Your task to perform on an android device: Open the Play Movies app and select the watchlist tab. Image 0: 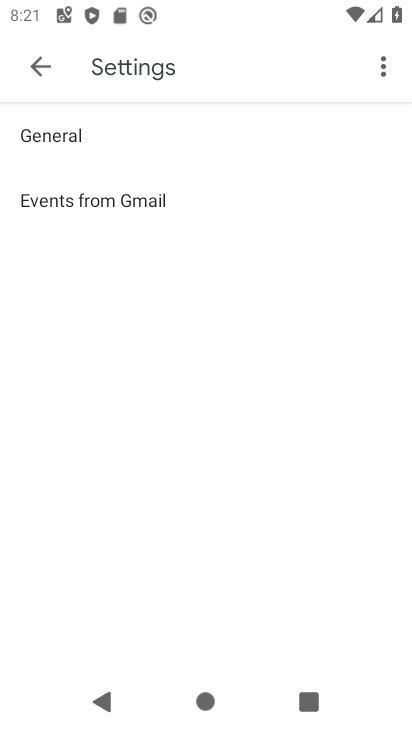
Step 0: press home button
Your task to perform on an android device: Open the Play Movies app and select the watchlist tab. Image 1: 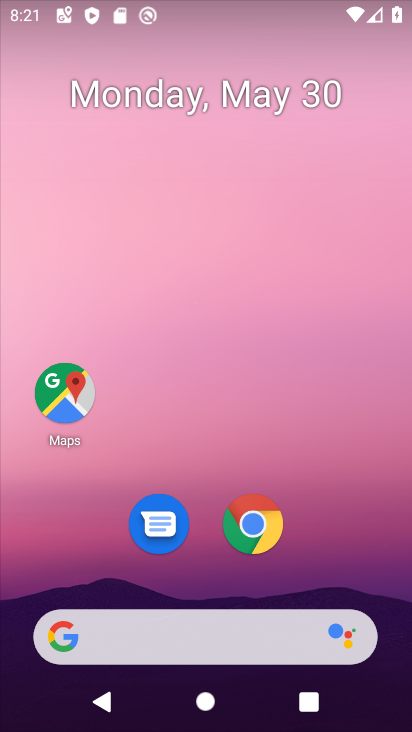
Step 1: drag from (305, 513) to (305, 31)
Your task to perform on an android device: Open the Play Movies app and select the watchlist tab. Image 2: 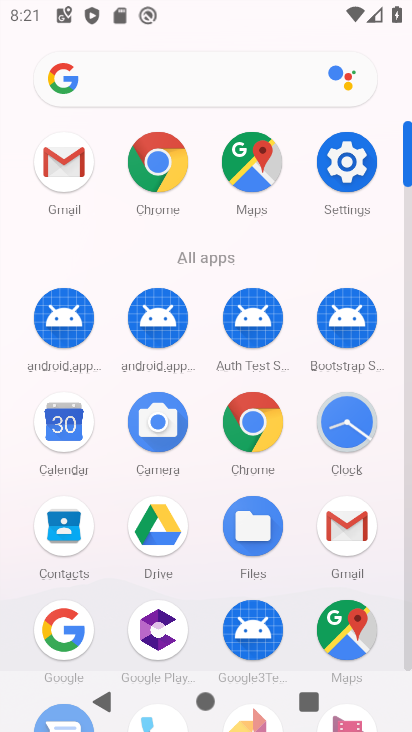
Step 2: drag from (310, 426) to (314, 203)
Your task to perform on an android device: Open the Play Movies app and select the watchlist tab. Image 3: 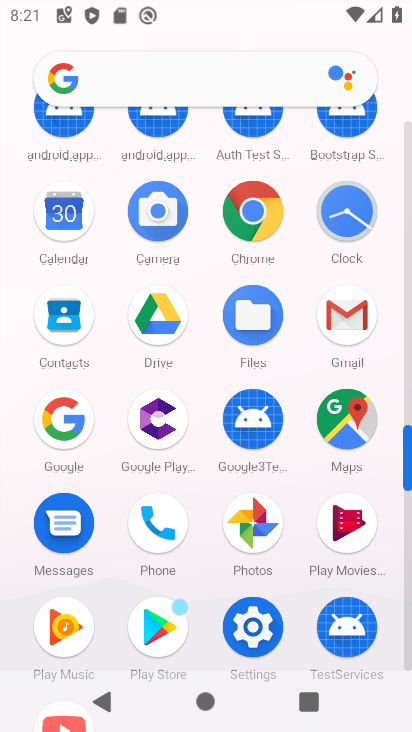
Step 3: click (347, 514)
Your task to perform on an android device: Open the Play Movies app and select the watchlist tab. Image 4: 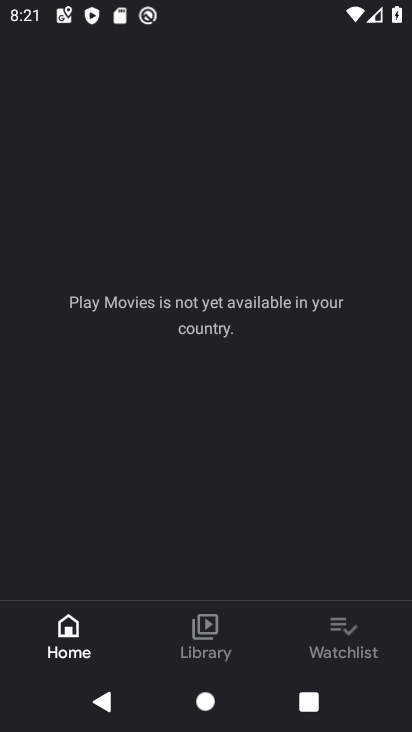
Step 4: click (345, 635)
Your task to perform on an android device: Open the Play Movies app and select the watchlist tab. Image 5: 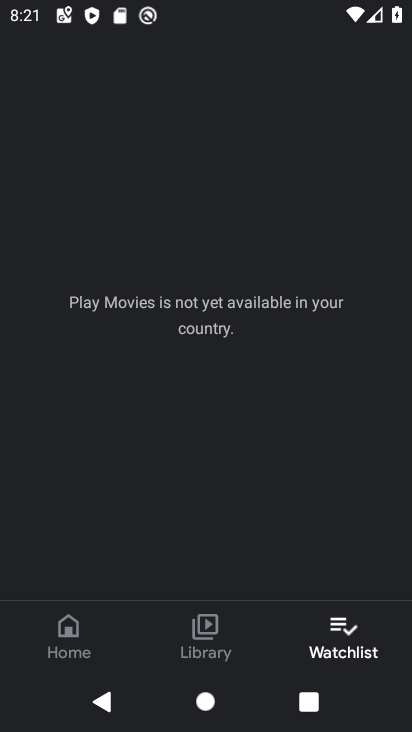
Step 5: task complete